Your task to perform on an android device: When is my next appointment? Image 0: 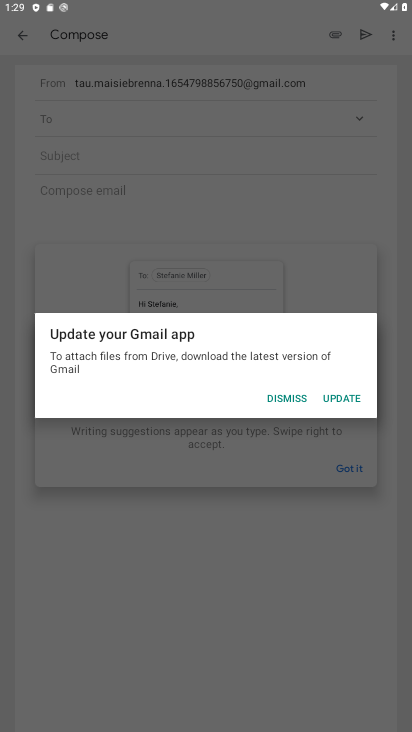
Step 0: press home button
Your task to perform on an android device: When is my next appointment? Image 1: 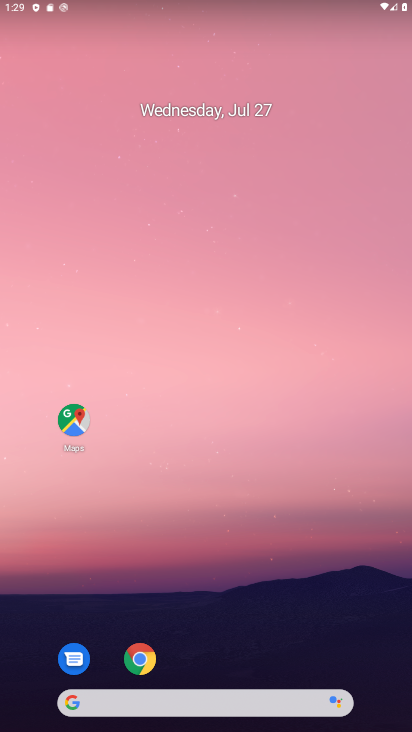
Step 1: drag from (288, 484) to (346, 135)
Your task to perform on an android device: When is my next appointment? Image 2: 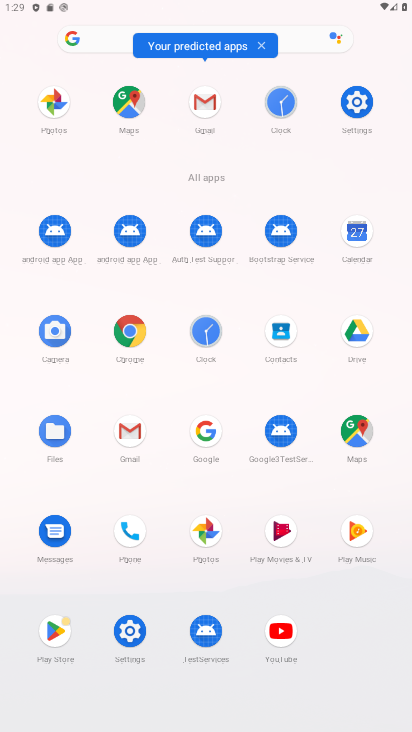
Step 2: click (355, 235)
Your task to perform on an android device: When is my next appointment? Image 3: 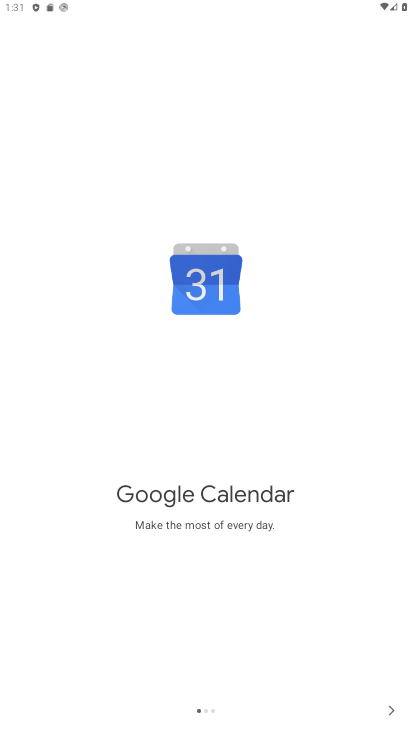
Step 3: task complete